Your task to perform on an android device: change the clock style Image 0: 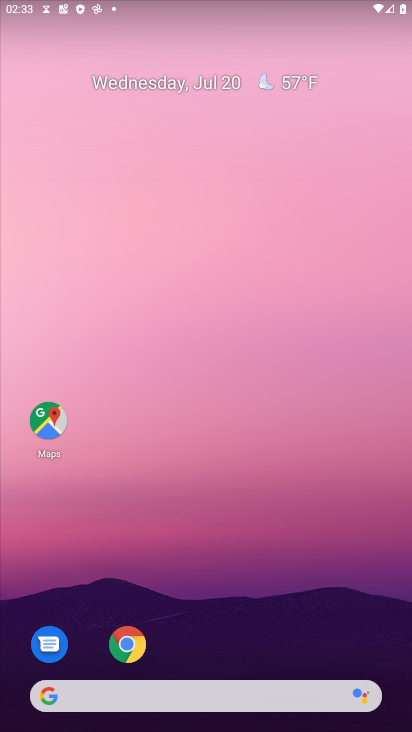
Step 0: press home button
Your task to perform on an android device: change the clock style Image 1: 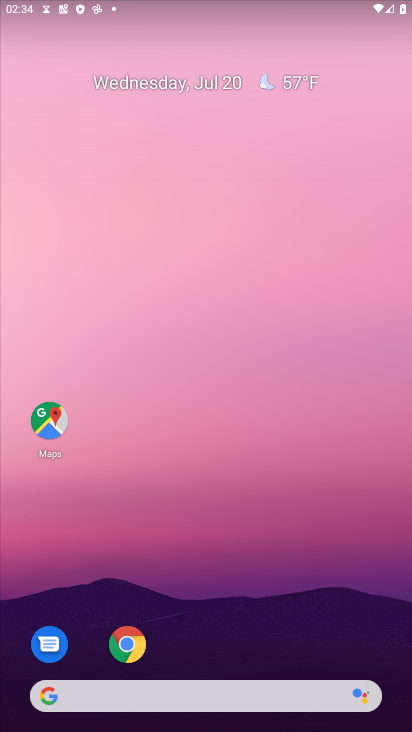
Step 1: drag from (228, 659) to (193, 66)
Your task to perform on an android device: change the clock style Image 2: 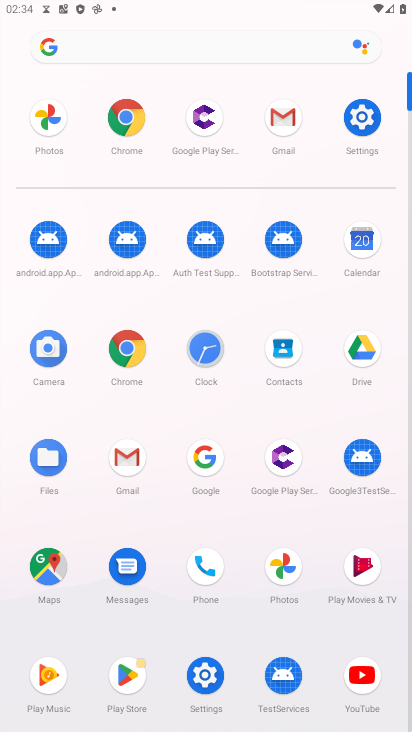
Step 2: click (207, 353)
Your task to perform on an android device: change the clock style Image 3: 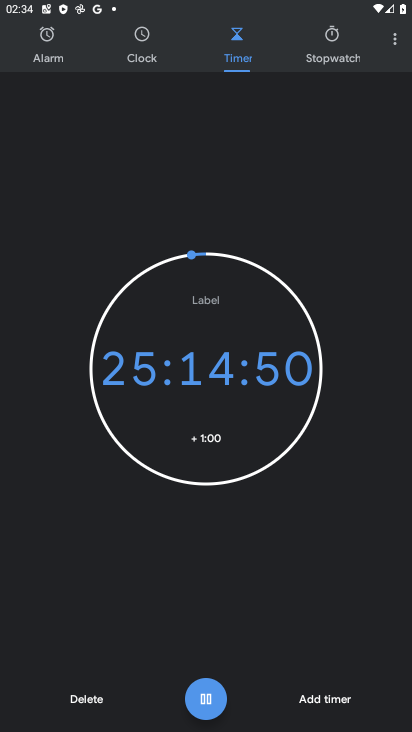
Step 3: click (402, 40)
Your task to perform on an android device: change the clock style Image 4: 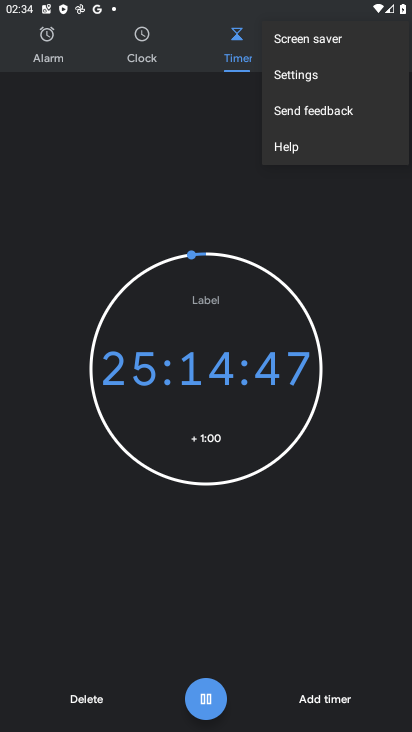
Step 4: click (317, 84)
Your task to perform on an android device: change the clock style Image 5: 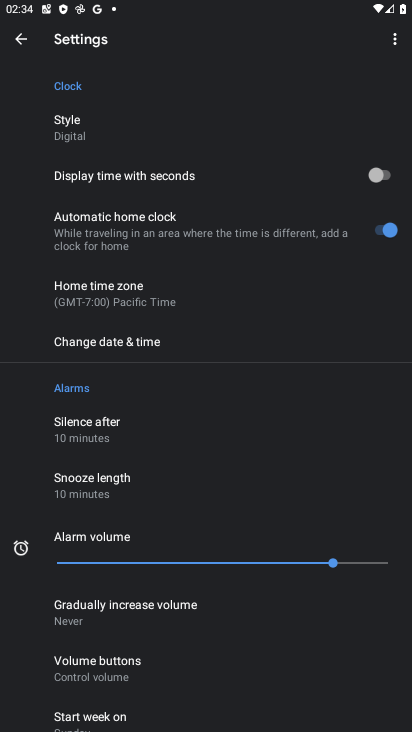
Step 5: click (68, 135)
Your task to perform on an android device: change the clock style Image 6: 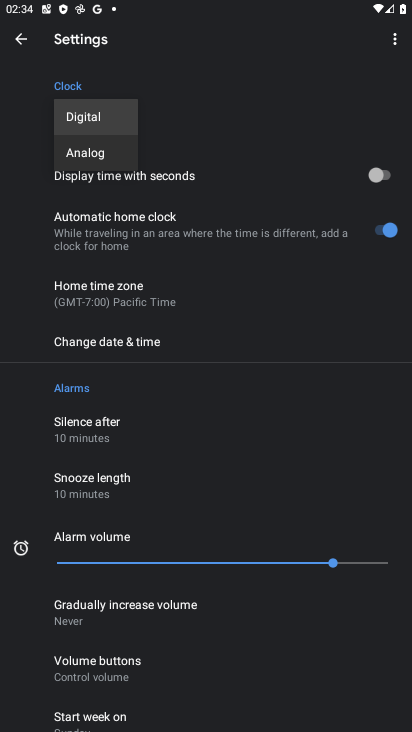
Step 6: click (89, 156)
Your task to perform on an android device: change the clock style Image 7: 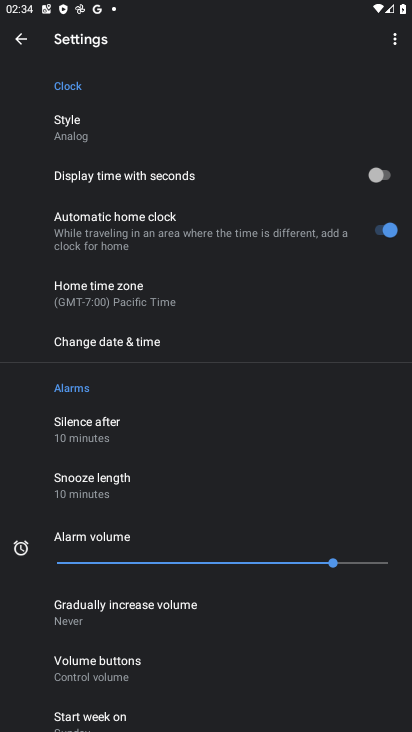
Step 7: task complete